Your task to perform on an android device: Go to accessibility settings Image 0: 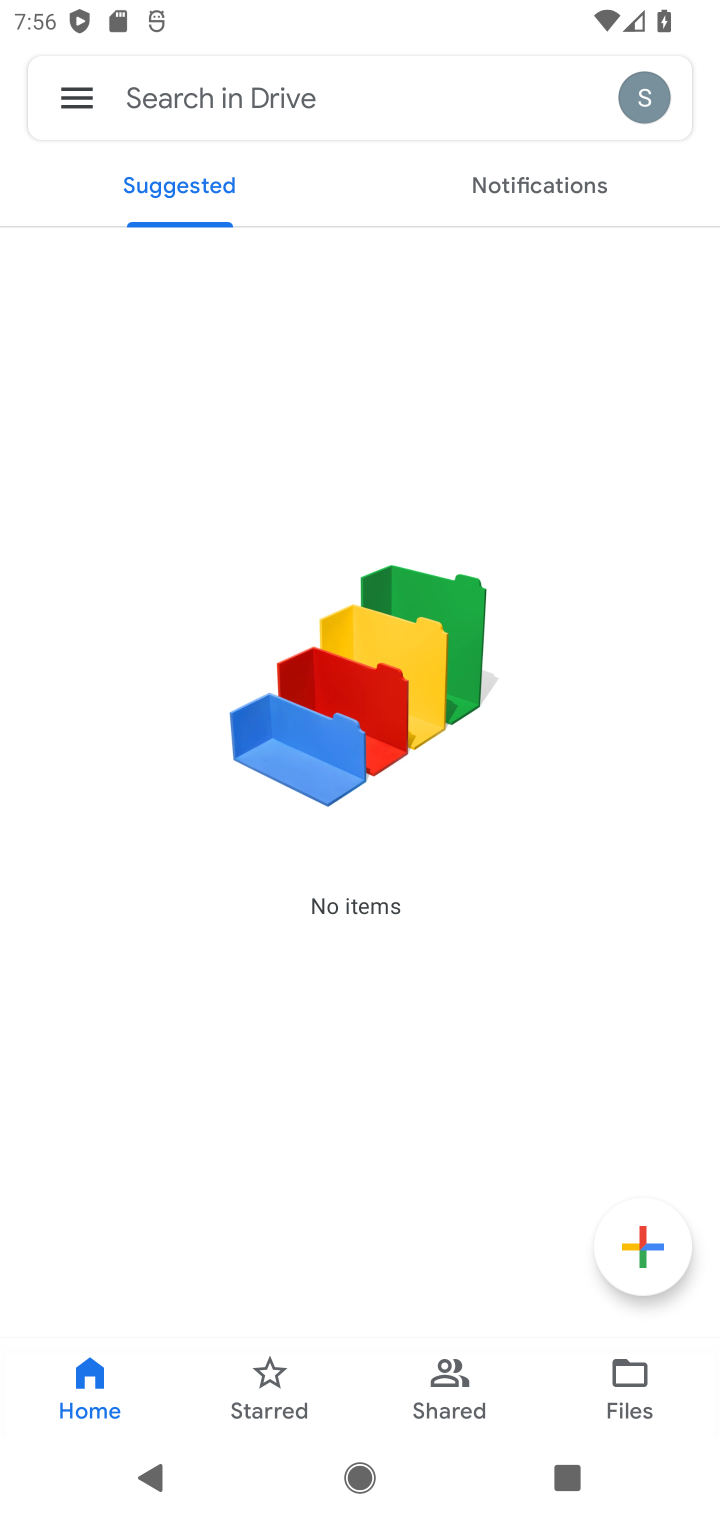
Step 0: press home button
Your task to perform on an android device: Go to accessibility settings Image 1: 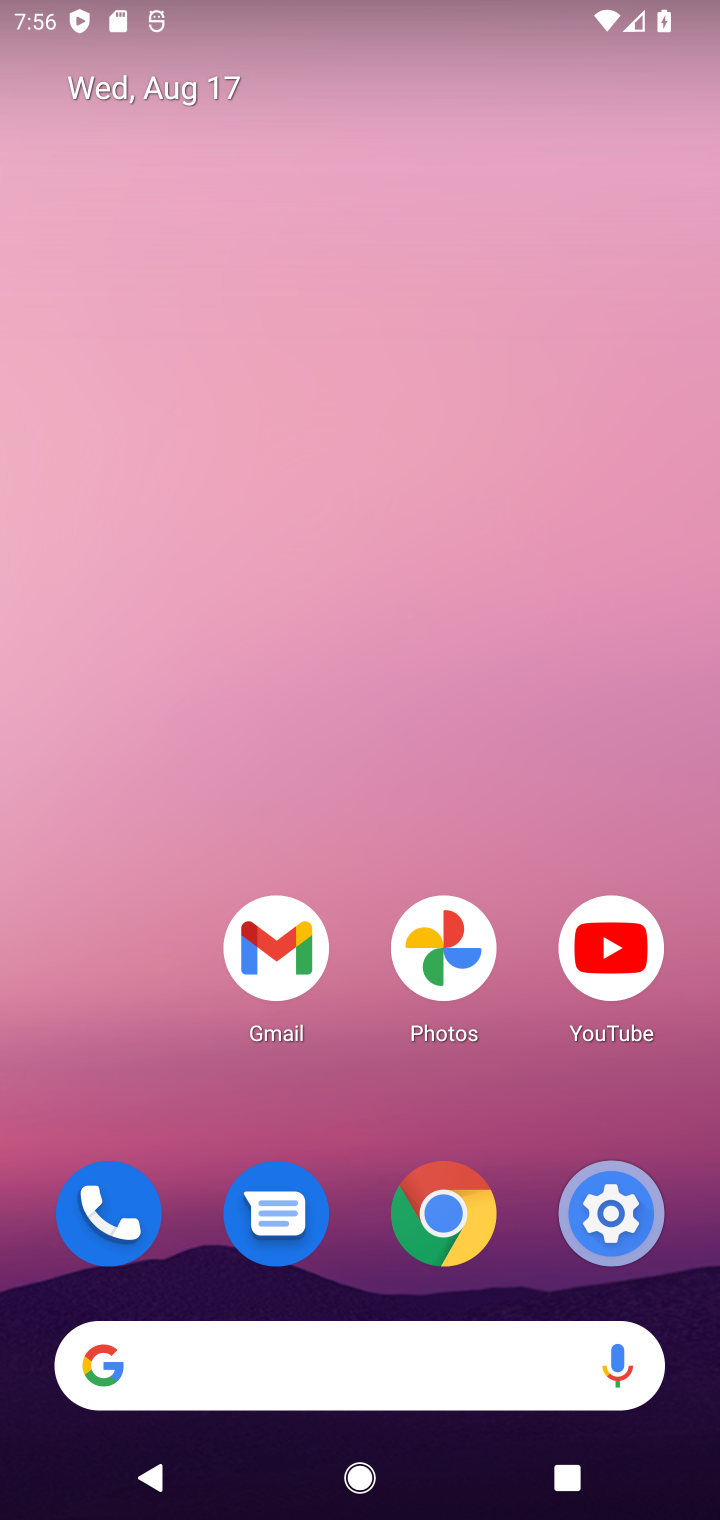
Step 1: click (606, 1227)
Your task to perform on an android device: Go to accessibility settings Image 2: 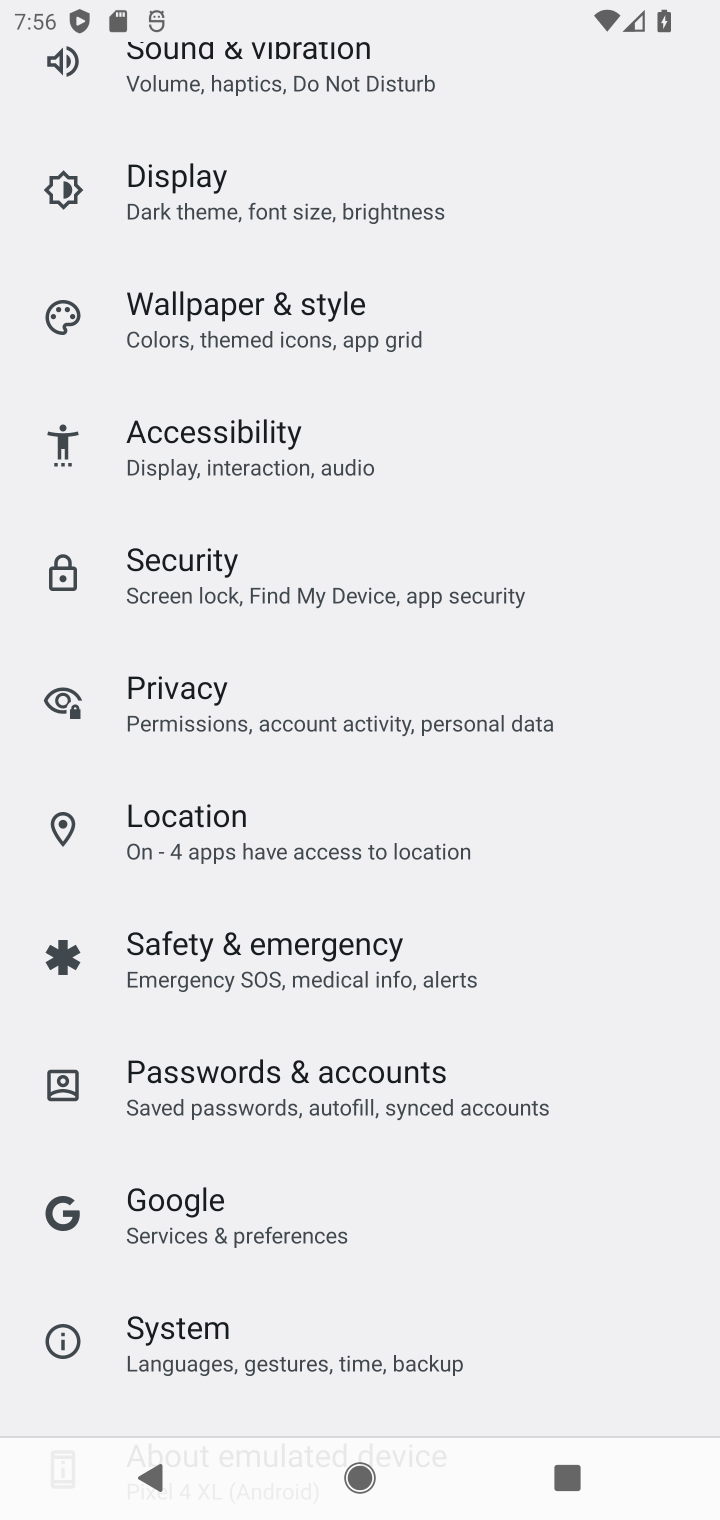
Step 2: click (279, 424)
Your task to perform on an android device: Go to accessibility settings Image 3: 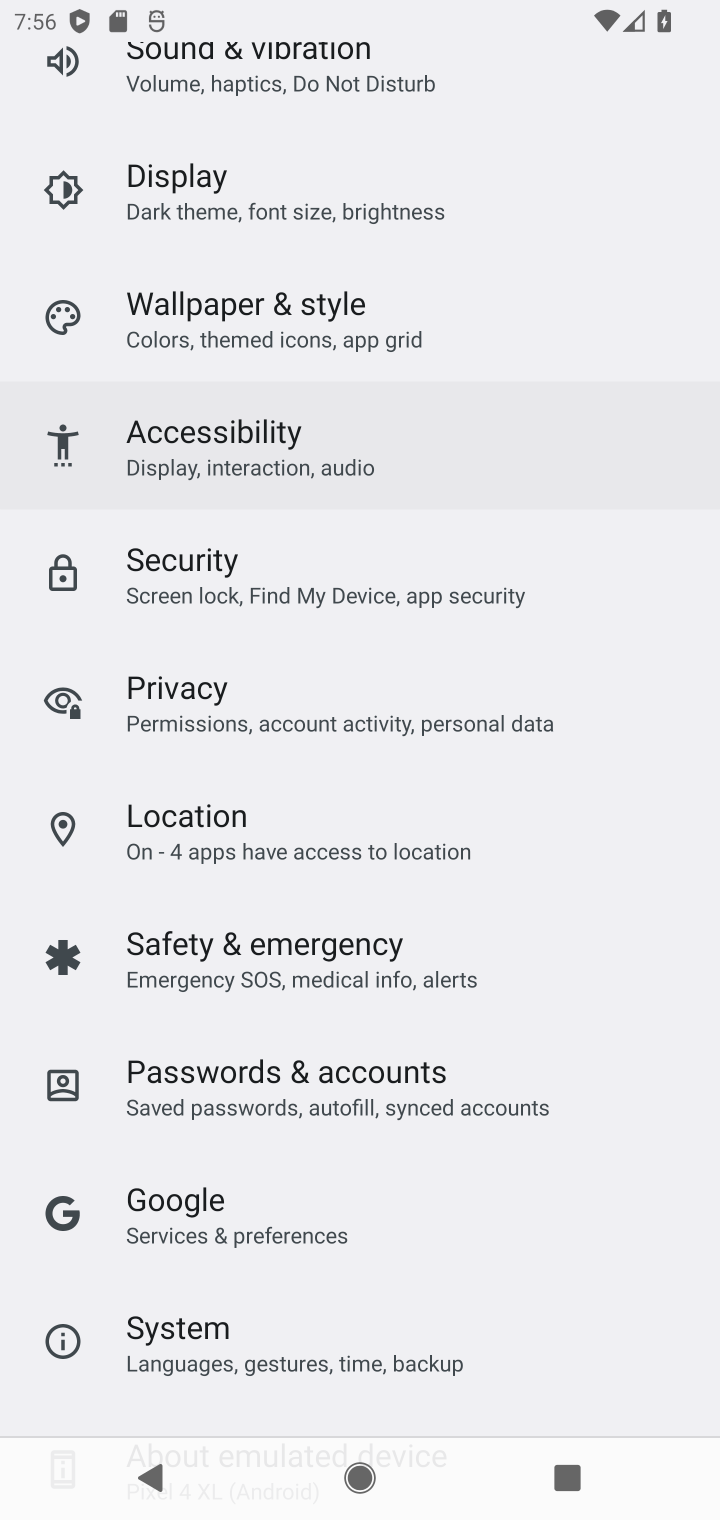
Step 3: task complete